Your task to perform on an android device: See recent photos Image 0: 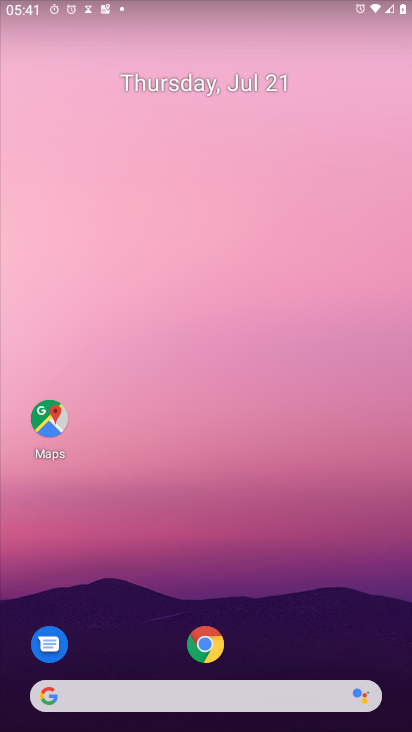
Step 0: press home button
Your task to perform on an android device: See recent photos Image 1: 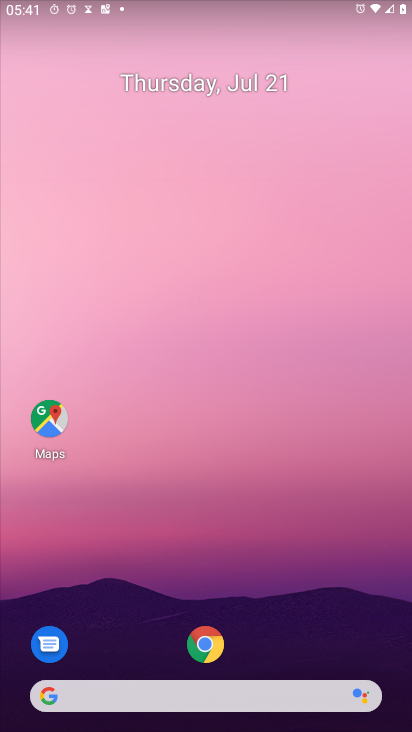
Step 1: press home button
Your task to perform on an android device: See recent photos Image 2: 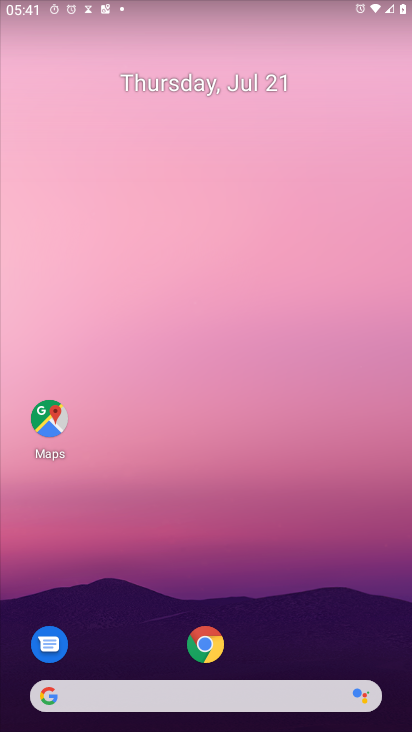
Step 2: drag from (287, 560) to (288, 69)
Your task to perform on an android device: See recent photos Image 3: 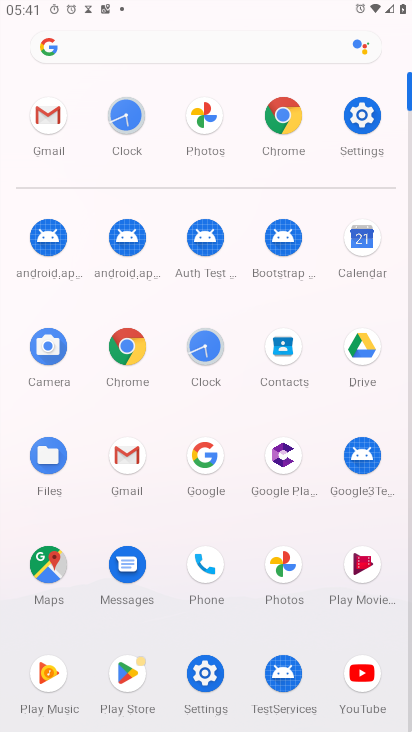
Step 3: click (282, 572)
Your task to perform on an android device: See recent photos Image 4: 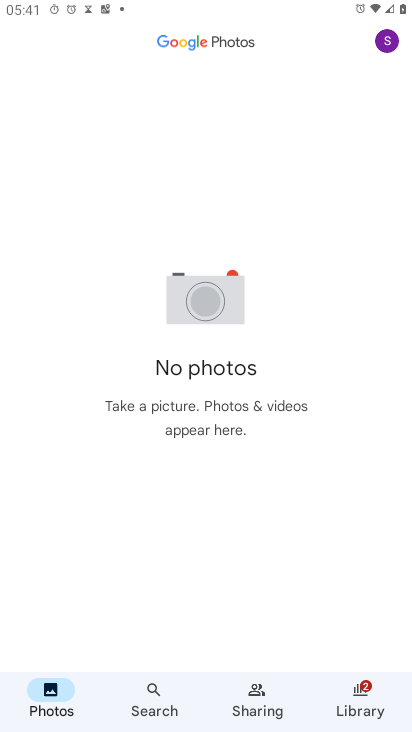
Step 4: click (50, 695)
Your task to perform on an android device: See recent photos Image 5: 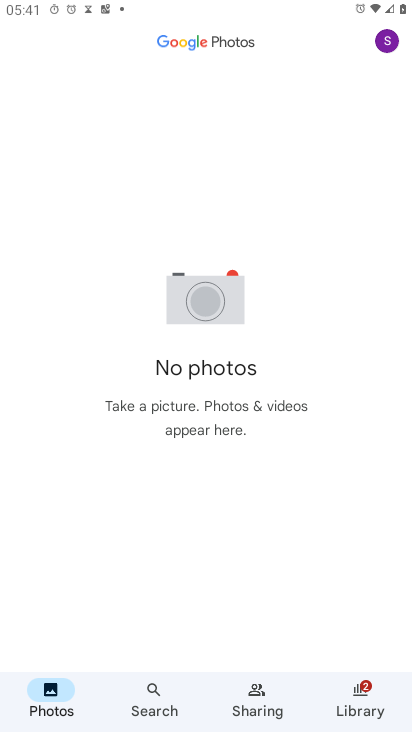
Step 5: task complete